Your task to perform on an android device: Go to Yahoo.com Image 0: 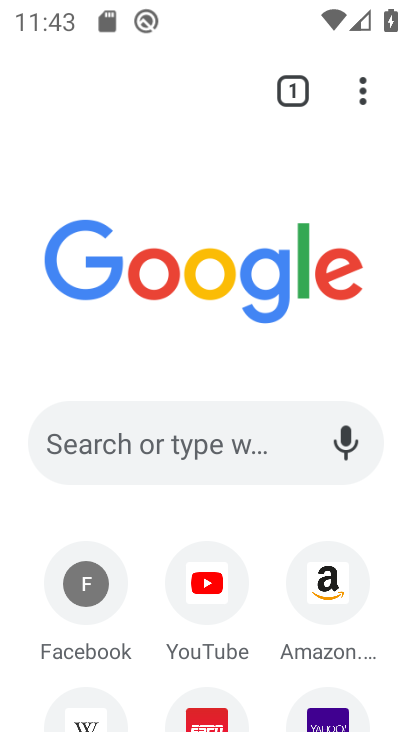
Step 0: click (322, 703)
Your task to perform on an android device: Go to Yahoo.com Image 1: 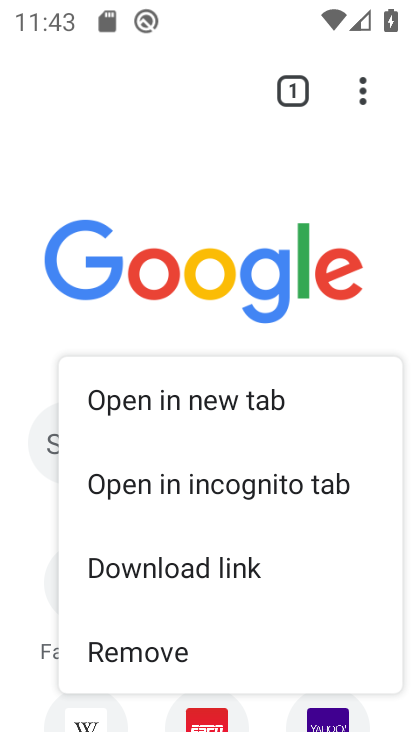
Step 1: click (322, 703)
Your task to perform on an android device: Go to Yahoo.com Image 2: 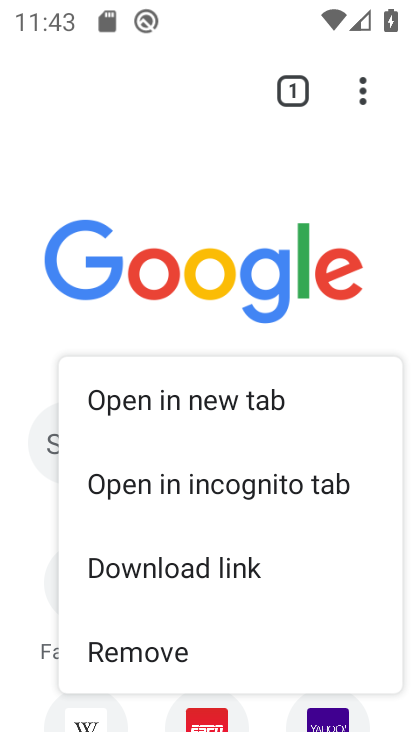
Step 2: click (322, 703)
Your task to perform on an android device: Go to Yahoo.com Image 3: 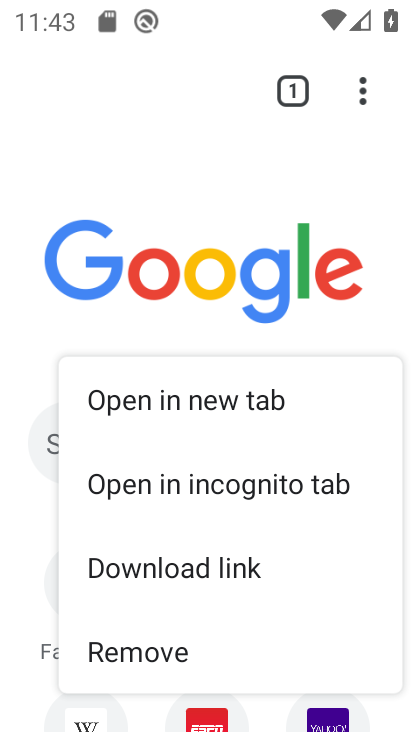
Step 3: click (331, 712)
Your task to perform on an android device: Go to Yahoo.com Image 4: 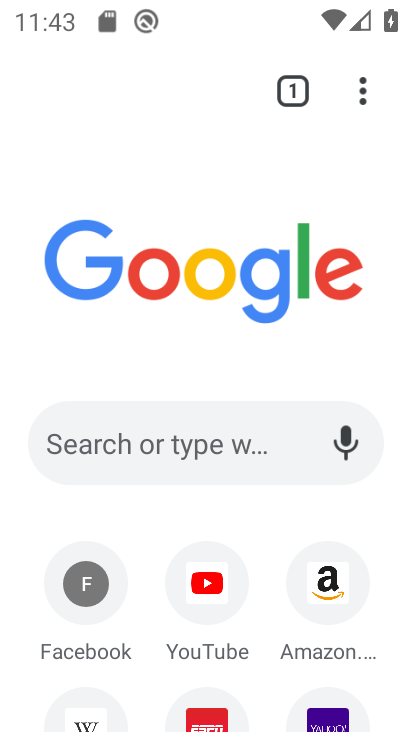
Step 4: click (312, 694)
Your task to perform on an android device: Go to Yahoo.com Image 5: 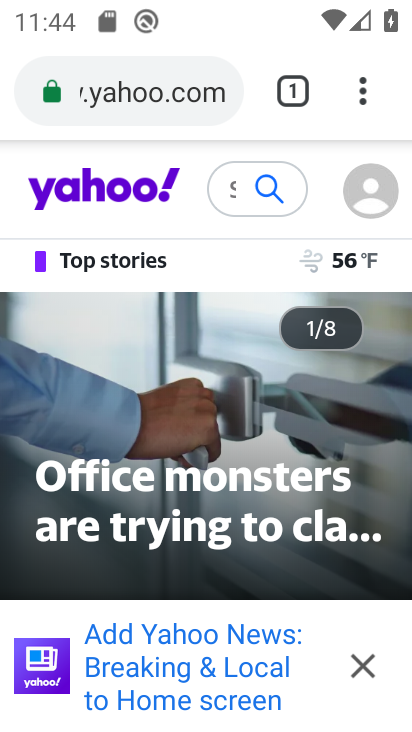
Step 5: task complete